Your task to perform on an android device: change notifications settings Image 0: 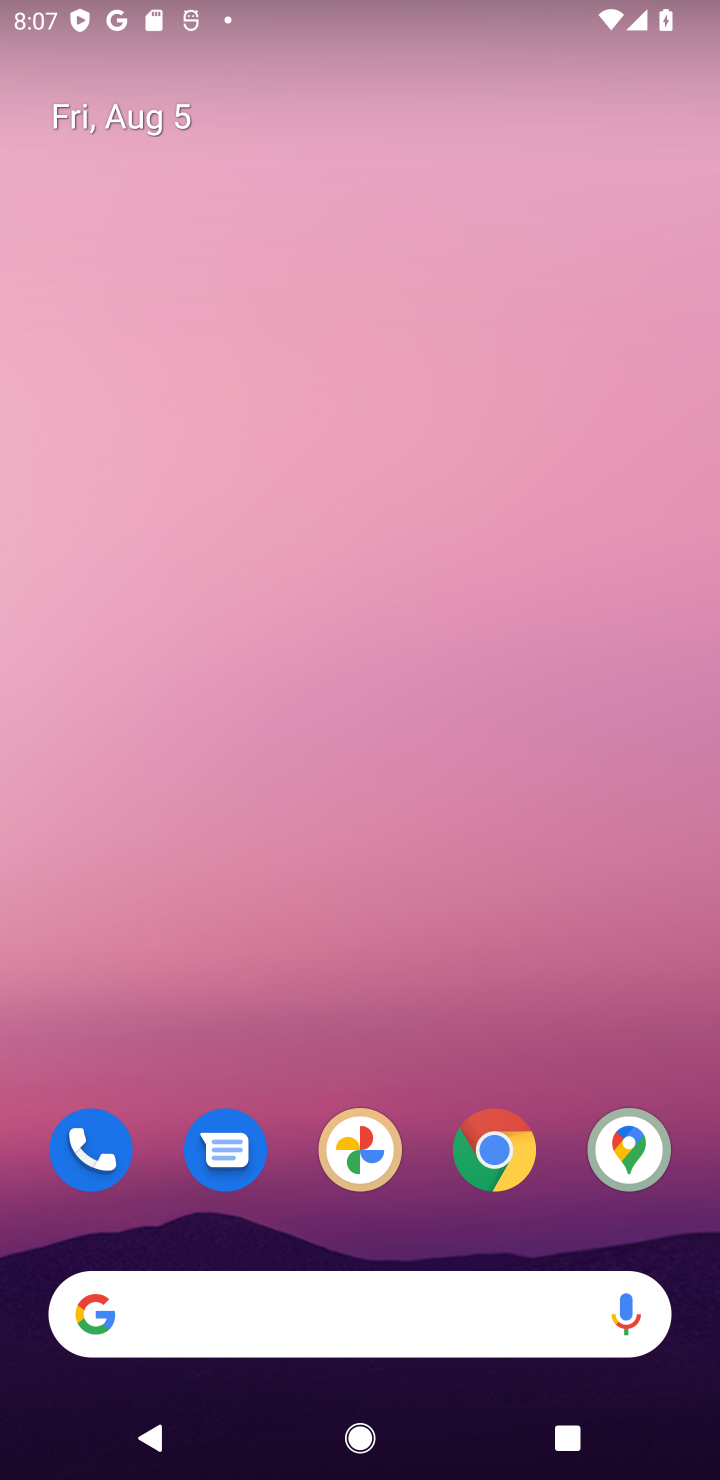
Step 0: drag from (460, 1037) to (468, 202)
Your task to perform on an android device: change notifications settings Image 1: 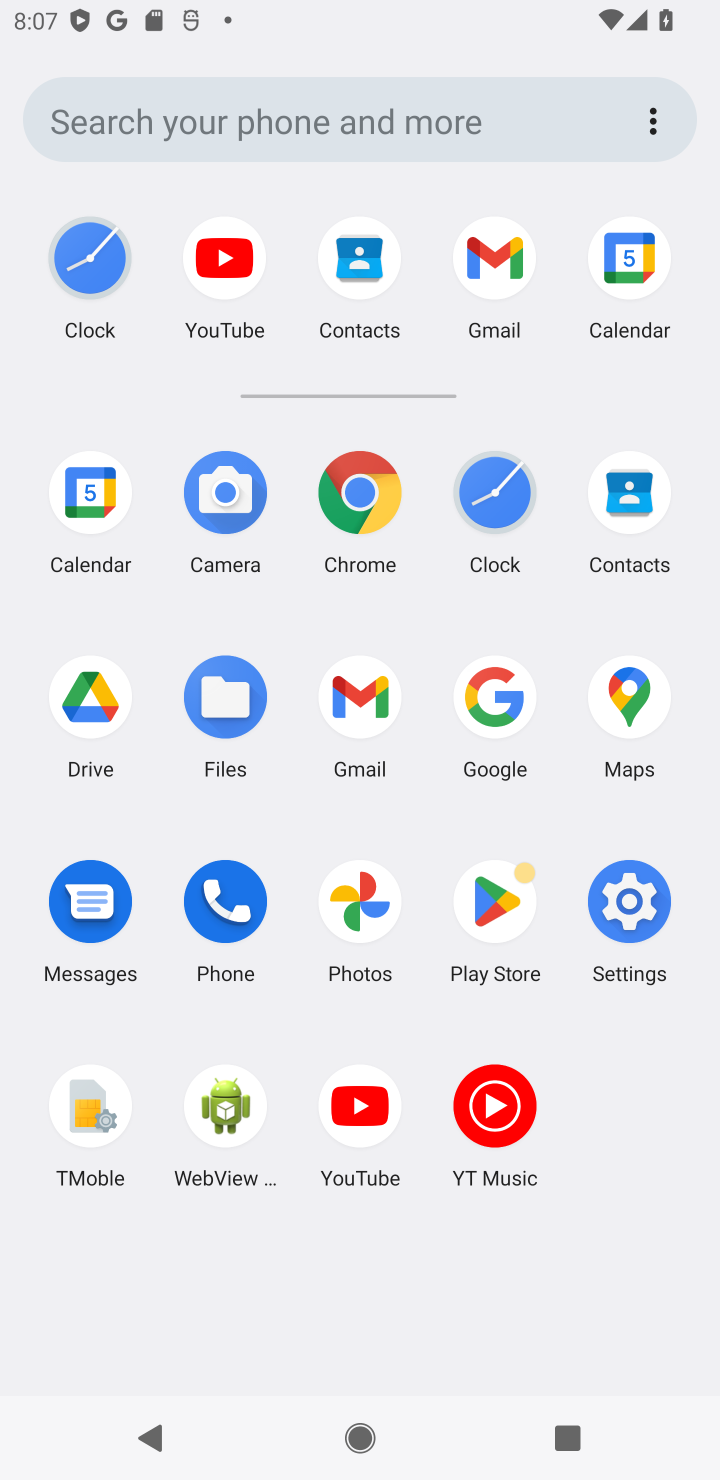
Step 1: click (614, 929)
Your task to perform on an android device: change notifications settings Image 2: 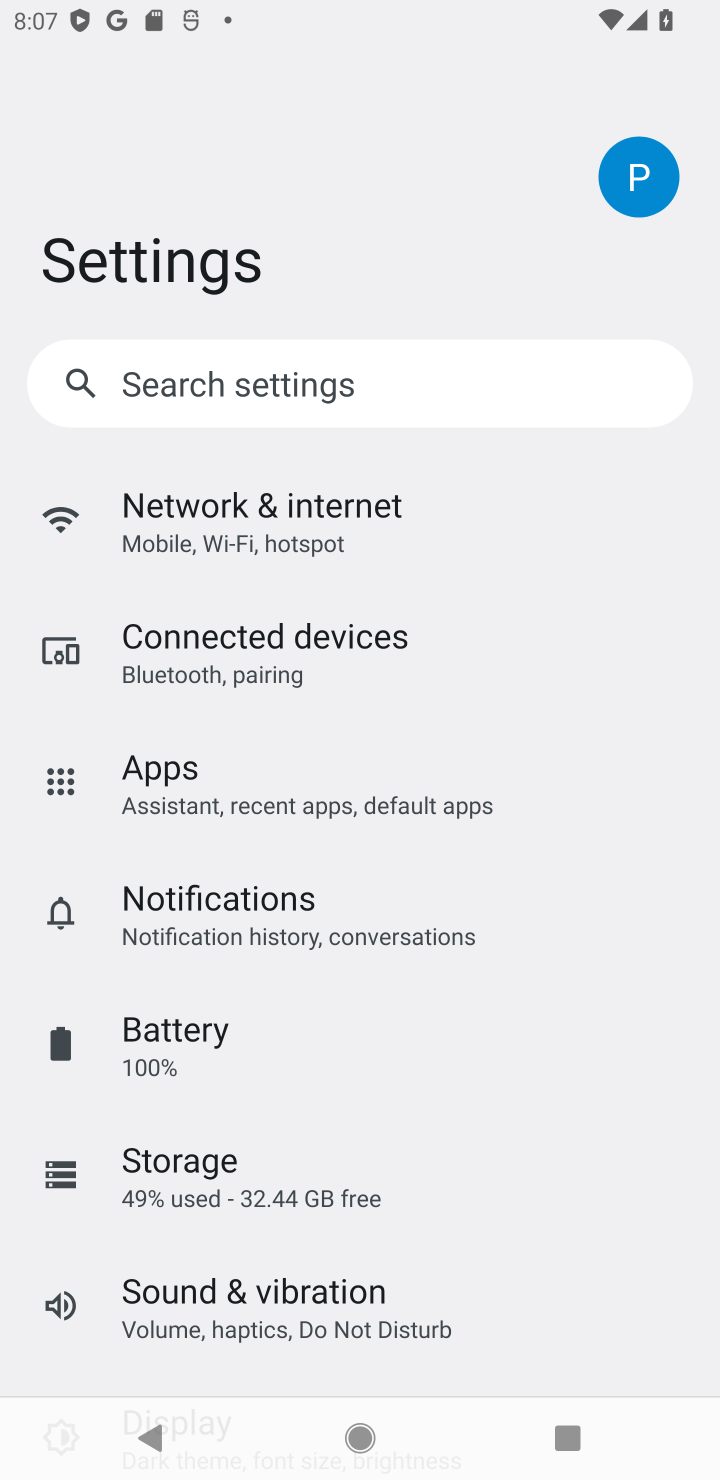
Step 2: drag from (607, 1055) to (618, 751)
Your task to perform on an android device: change notifications settings Image 3: 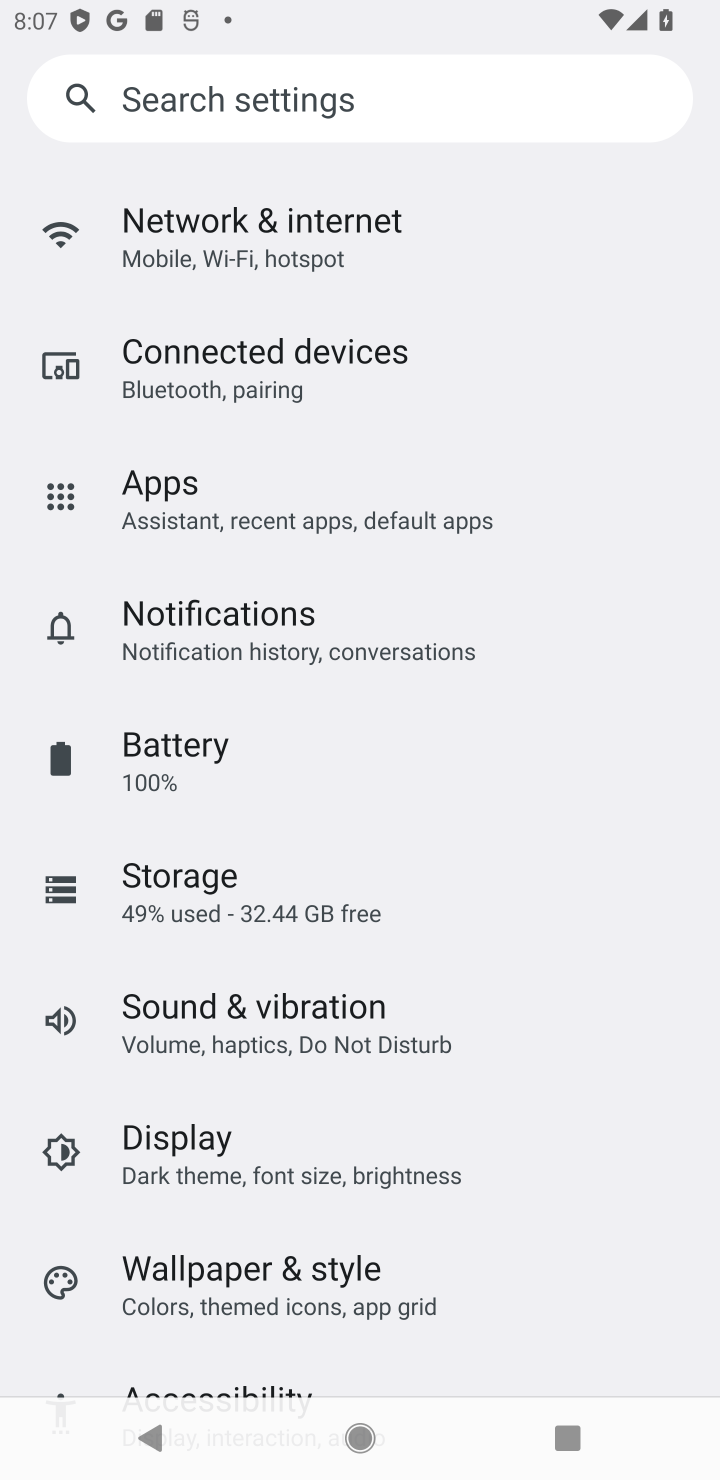
Step 3: drag from (601, 1018) to (624, 860)
Your task to perform on an android device: change notifications settings Image 4: 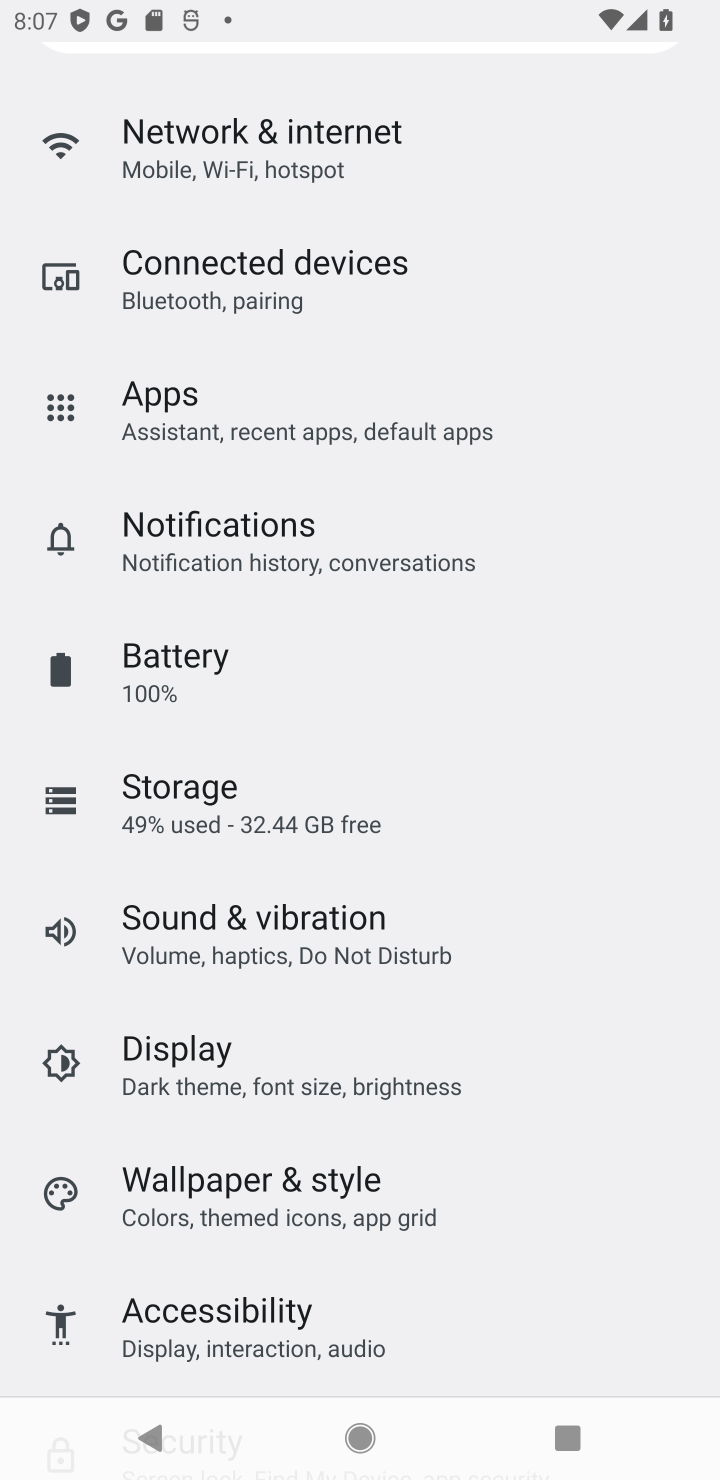
Step 4: drag from (594, 1175) to (566, 770)
Your task to perform on an android device: change notifications settings Image 5: 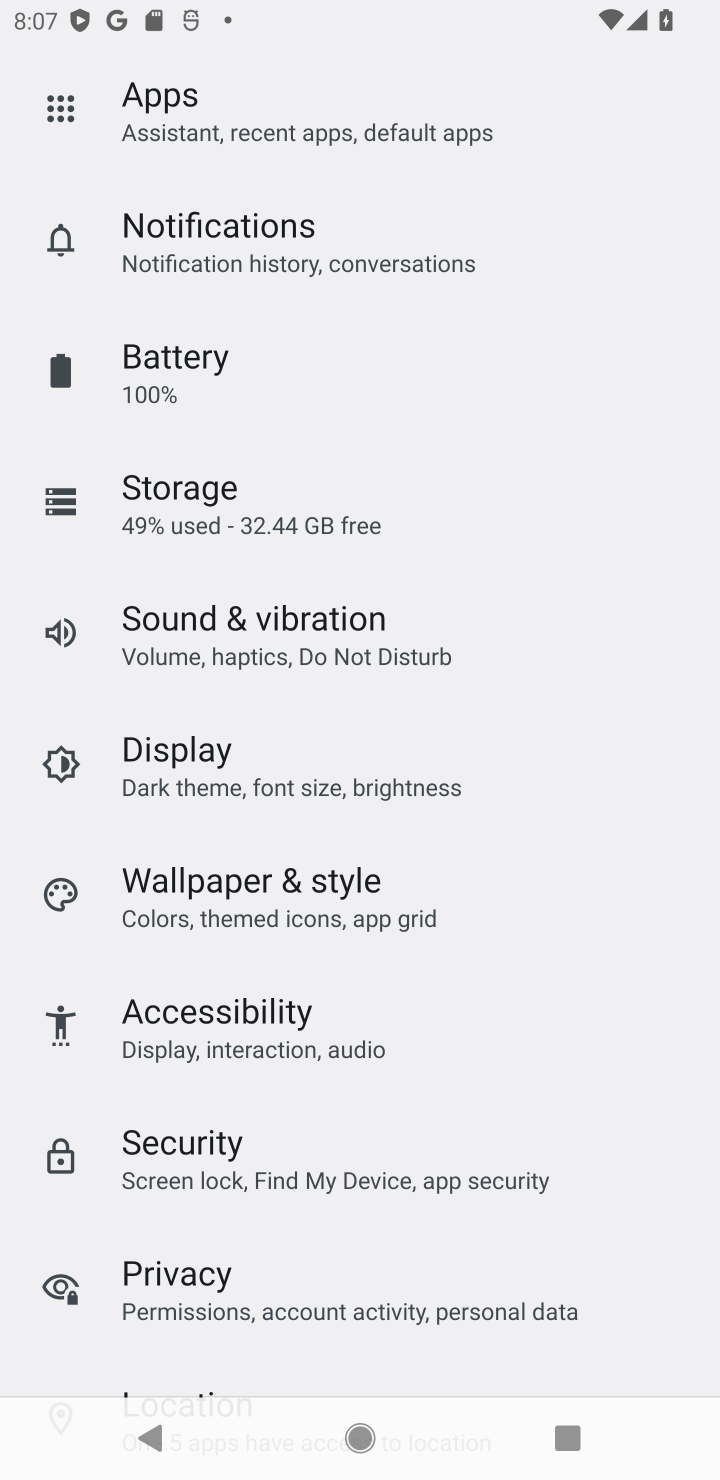
Step 5: drag from (606, 489) to (609, 812)
Your task to perform on an android device: change notifications settings Image 6: 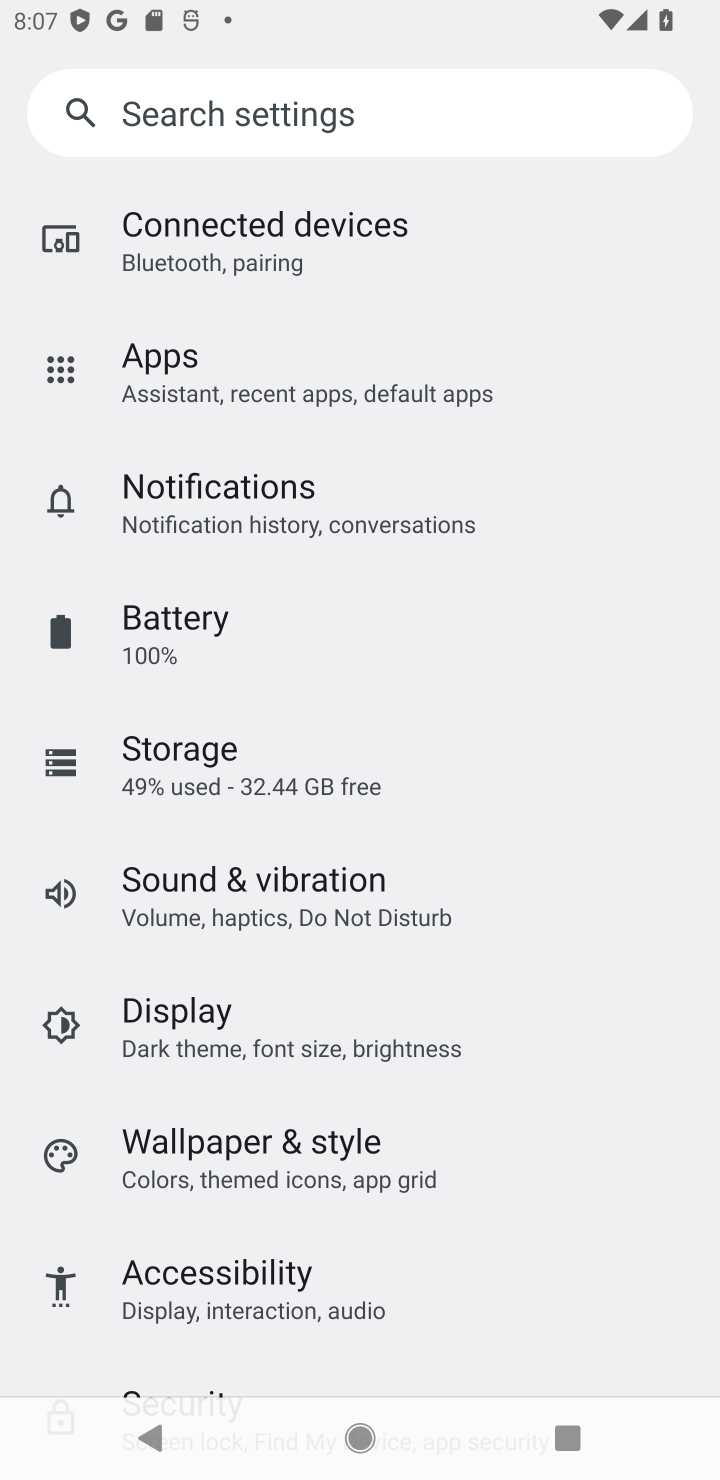
Step 6: click (450, 474)
Your task to perform on an android device: change notifications settings Image 7: 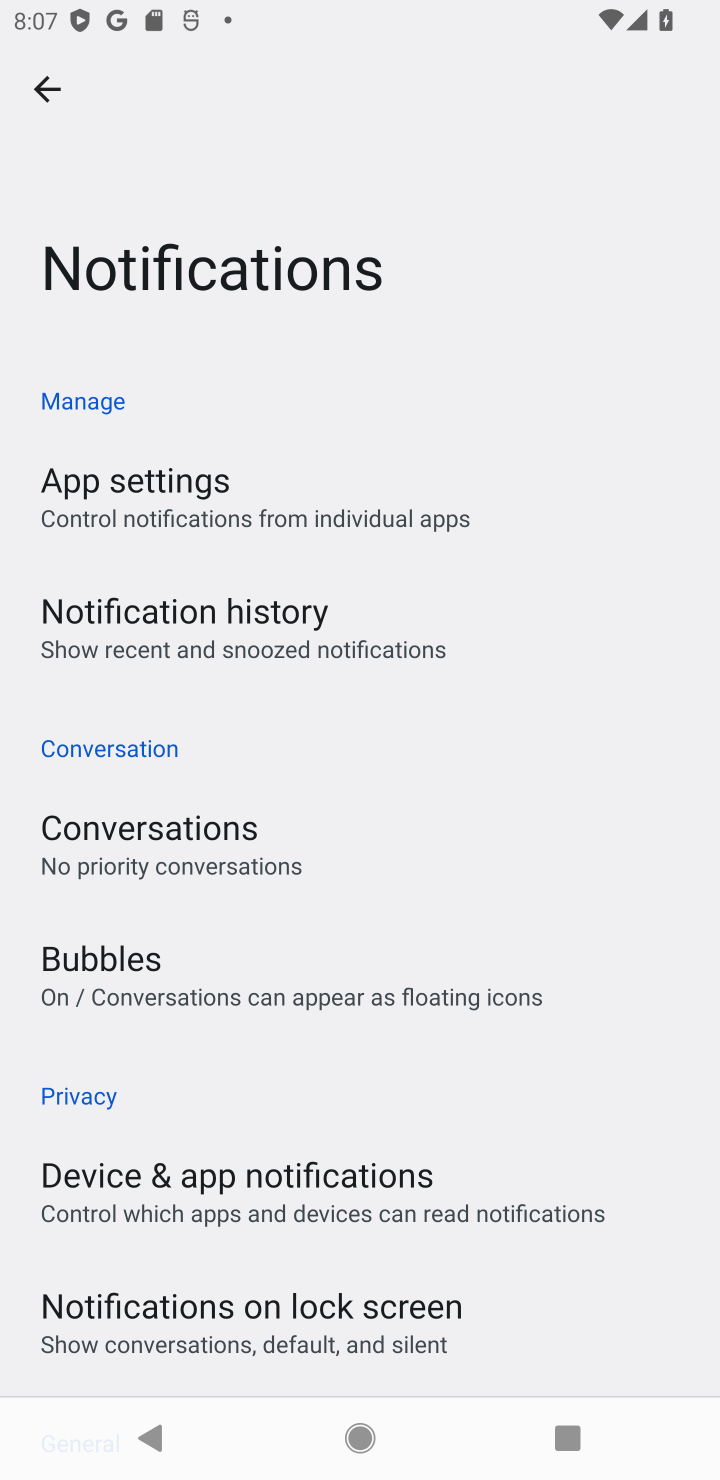
Step 7: drag from (589, 1068) to (585, 585)
Your task to perform on an android device: change notifications settings Image 8: 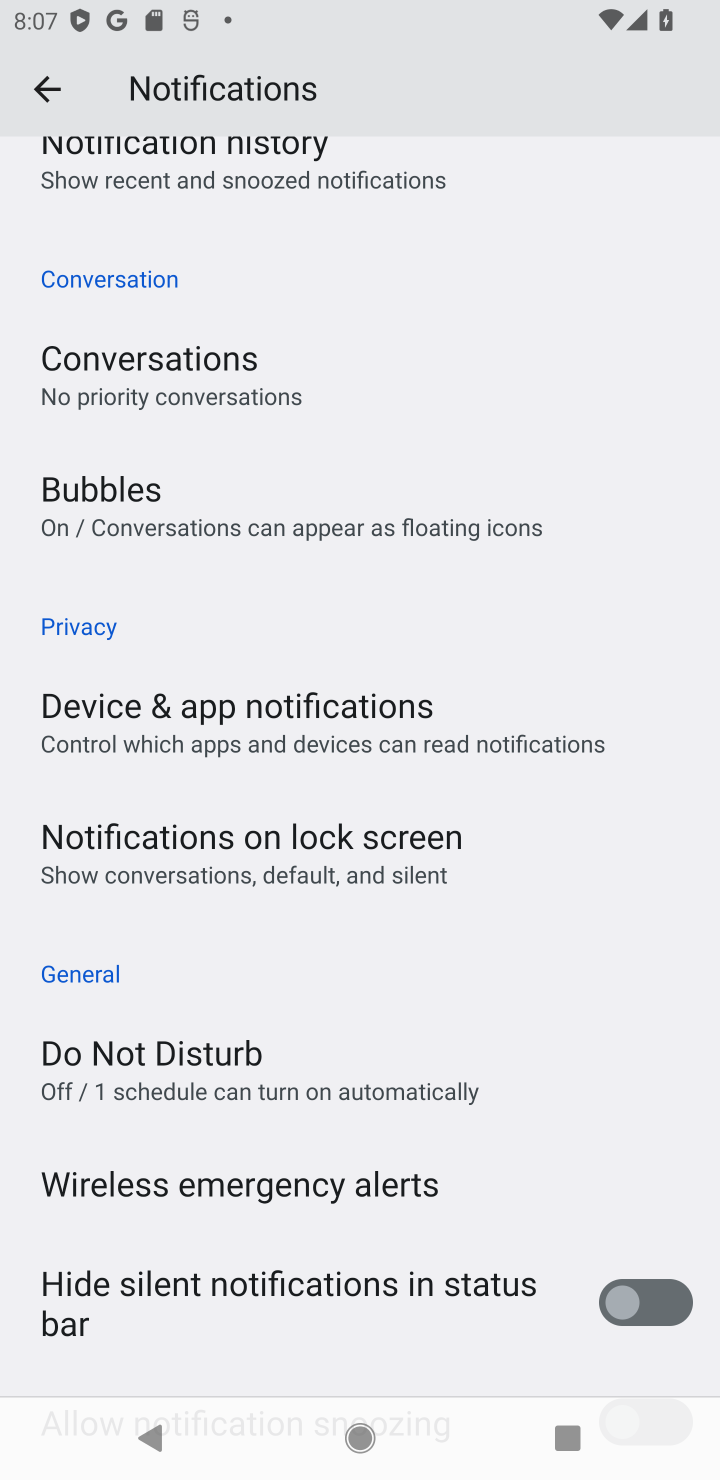
Step 8: drag from (614, 426) to (638, 1059)
Your task to perform on an android device: change notifications settings Image 9: 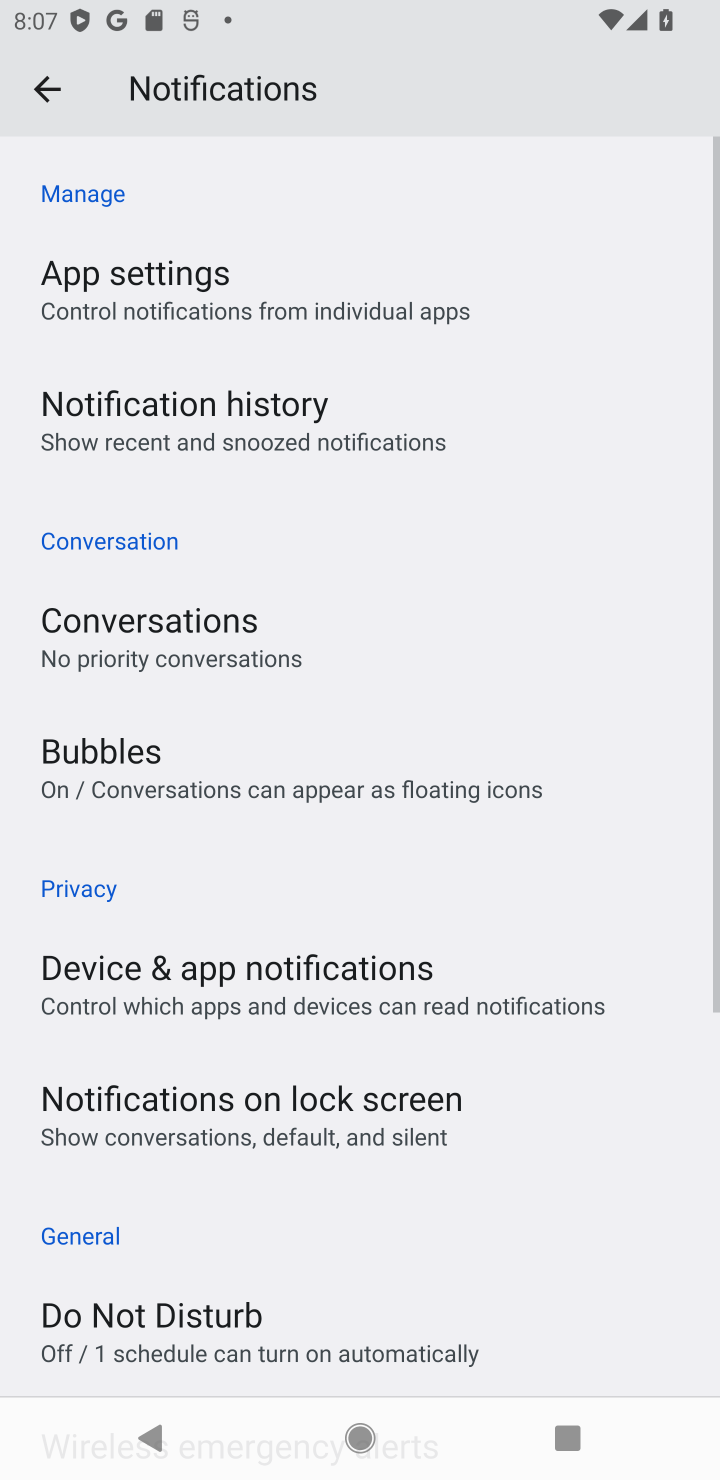
Step 9: drag from (609, 518) to (609, 1007)
Your task to perform on an android device: change notifications settings Image 10: 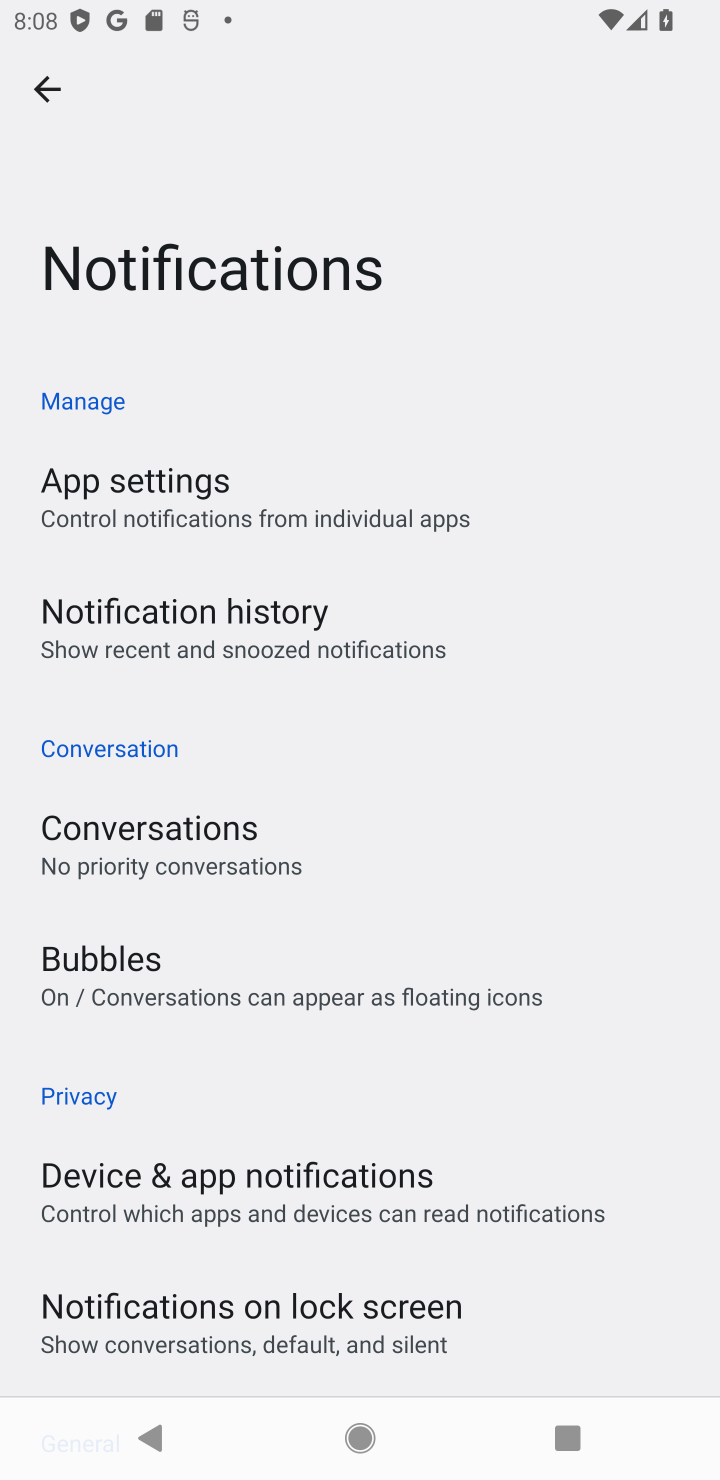
Step 10: click (362, 1204)
Your task to perform on an android device: change notifications settings Image 11: 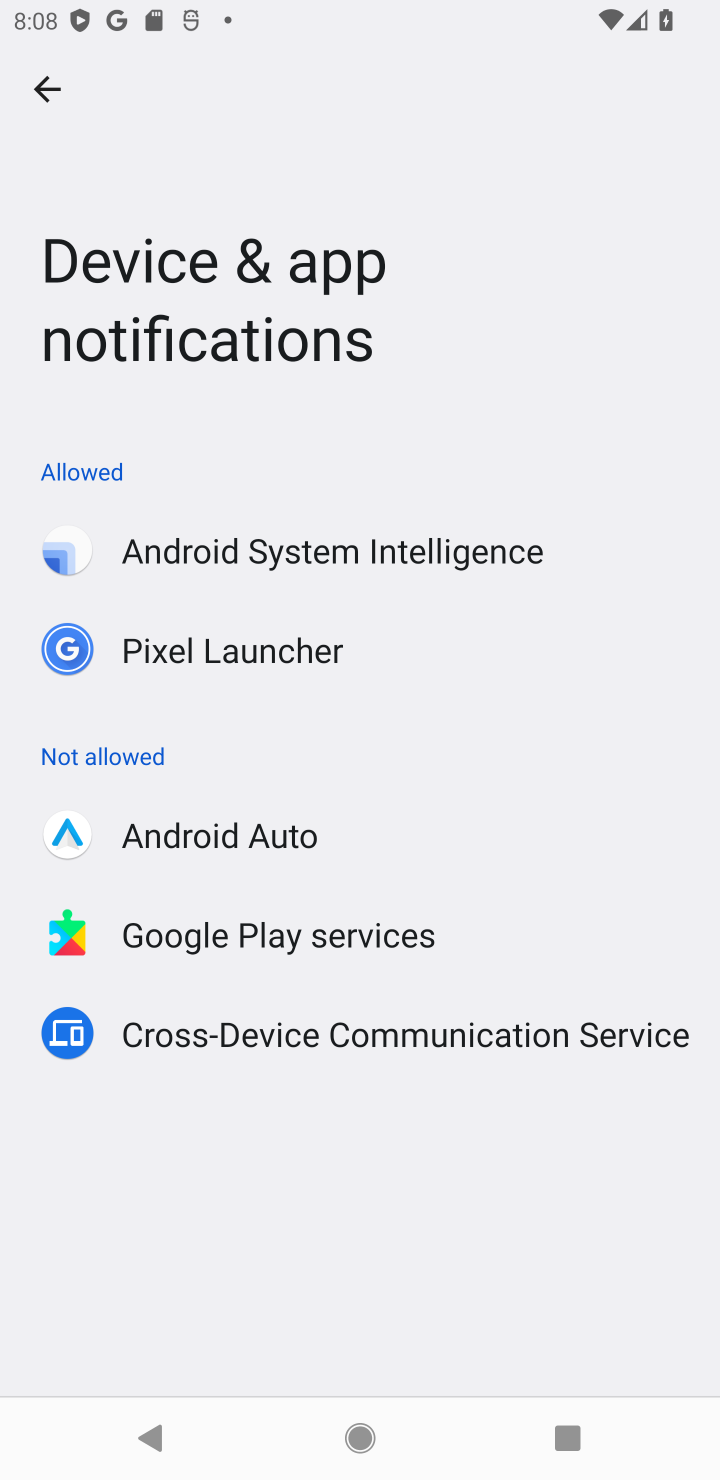
Step 11: task complete